Your task to perform on an android device: create a new album in the google photos Image 0: 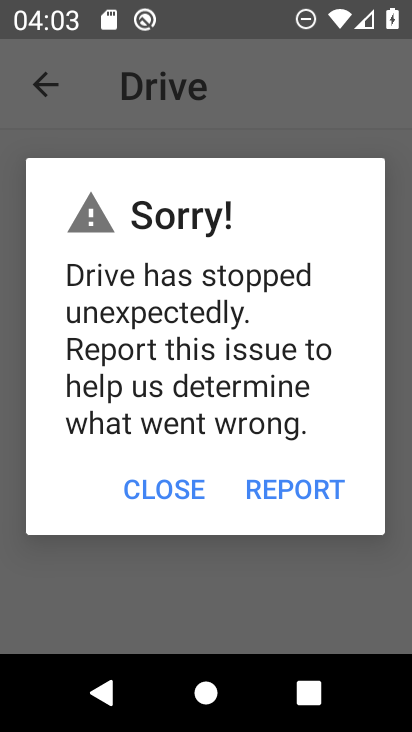
Step 0: press back button
Your task to perform on an android device: create a new album in the google photos Image 1: 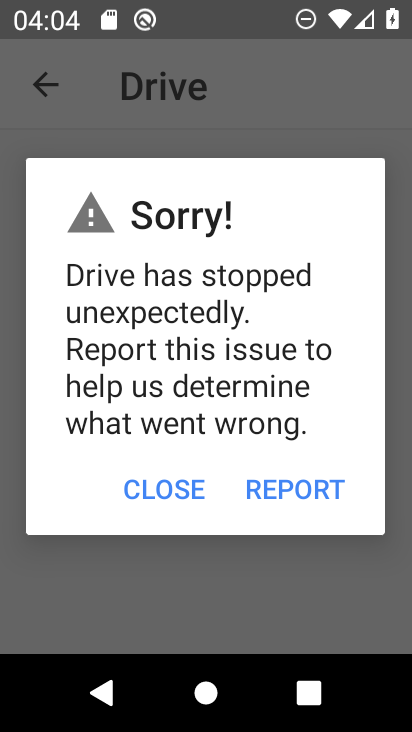
Step 1: press back button
Your task to perform on an android device: create a new album in the google photos Image 2: 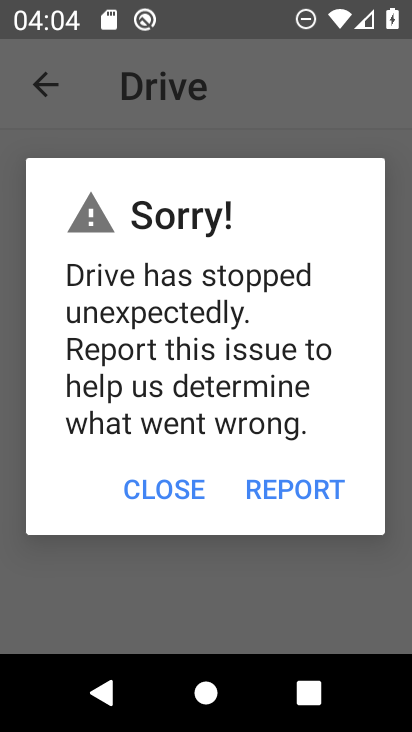
Step 2: press home button
Your task to perform on an android device: create a new album in the google photos Image 3: 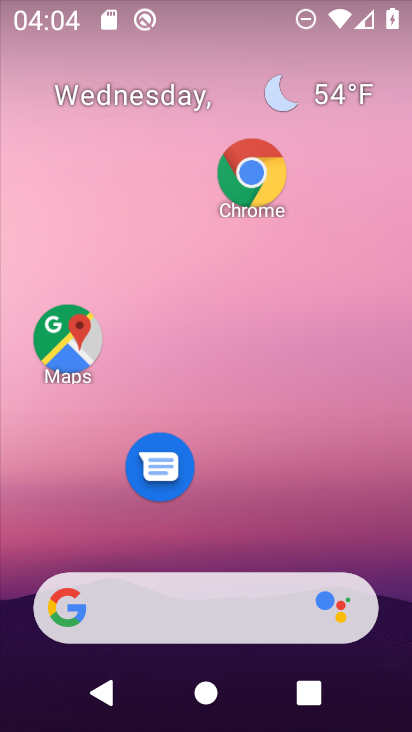
Step 3: drag from (256, 524) to (273, 36)
Your task to perform on an android device: create a new album in the google photos Image 4: 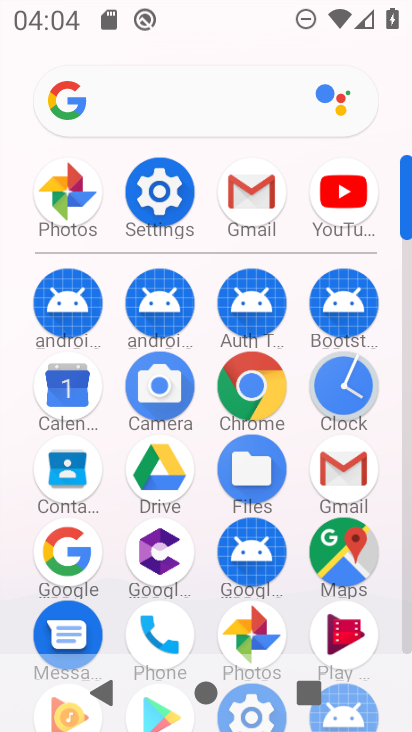
Step 4: click (249, 627)
Your task to perform on an android device: create a new album in the google photos Image 5: 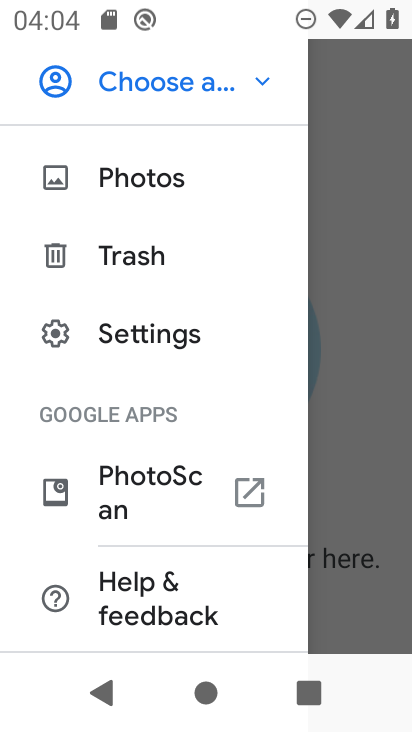
Step 5: click (361, 265)
Your task to perform on an android device: create a new album in the google photos Image 6: 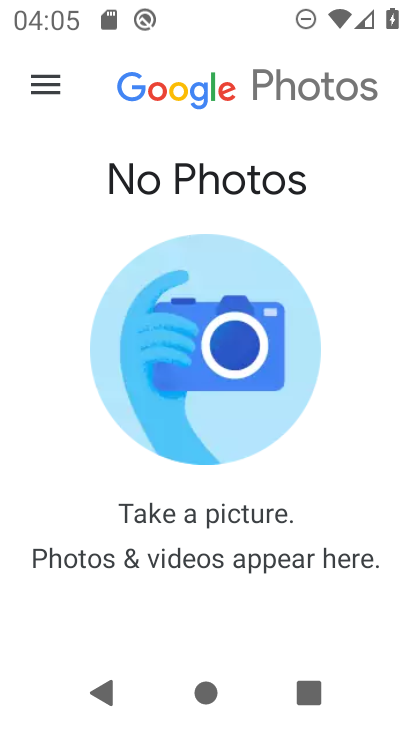
Step 6: click (53, 78)
Your task to perform on an android device: create a new album in the google photos Image 7: 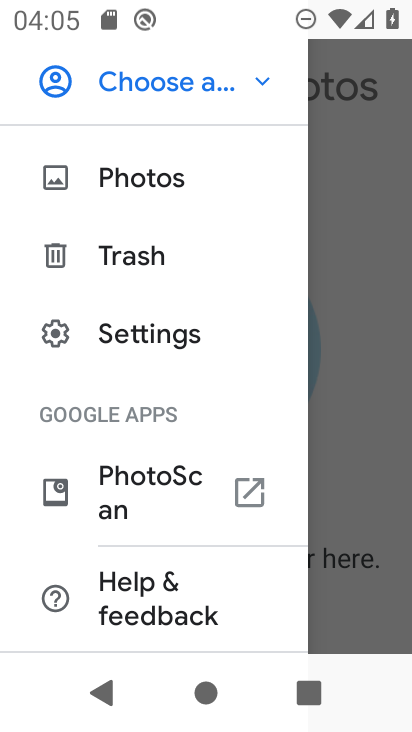
Step 7: task complete